Your task to perform on an android device: Open privacy settings Image 0: 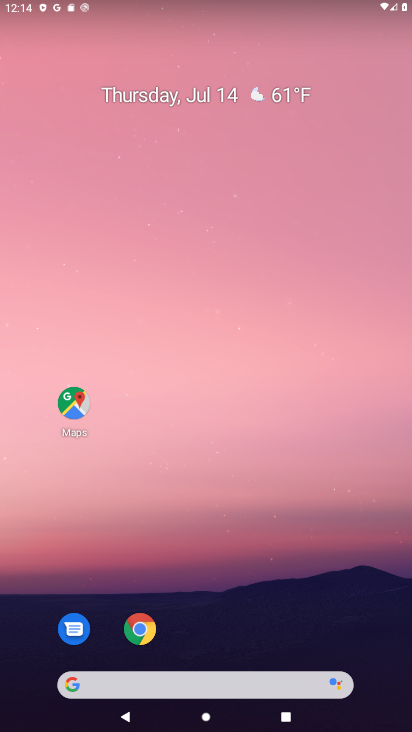
Step 0: drag from (219, 641) to (245, 95)
Your task to perform on an android device: Open privacy settings Image 1: 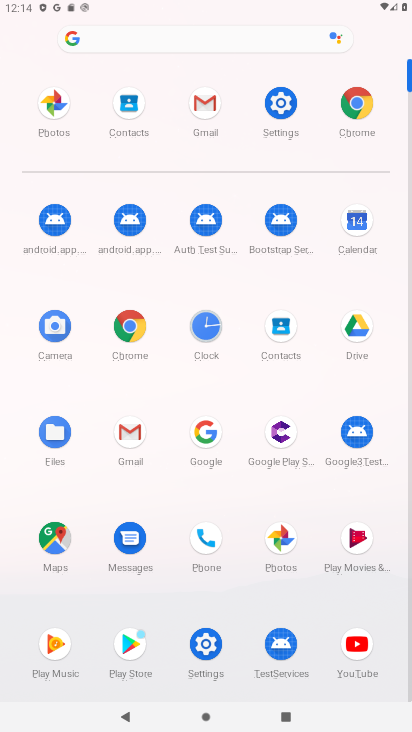
Step 1: click (274, 101)
Your task to perform on an android device: Open privacy settings Image 2: 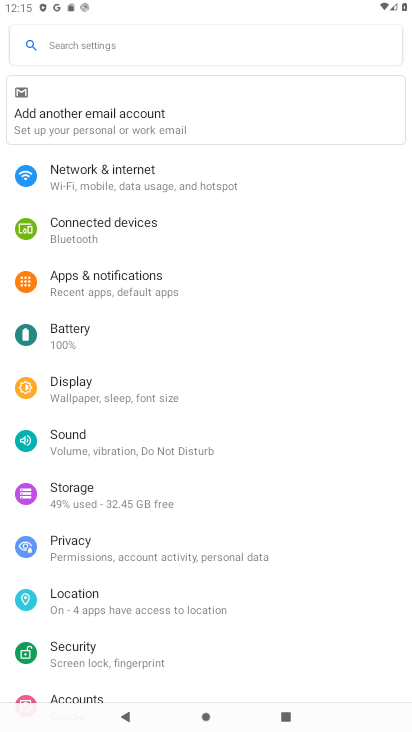
Step 2: drag from (143, 620) to (216, 253)
Your task to perform on an android device: Open privacy settings Image 3: 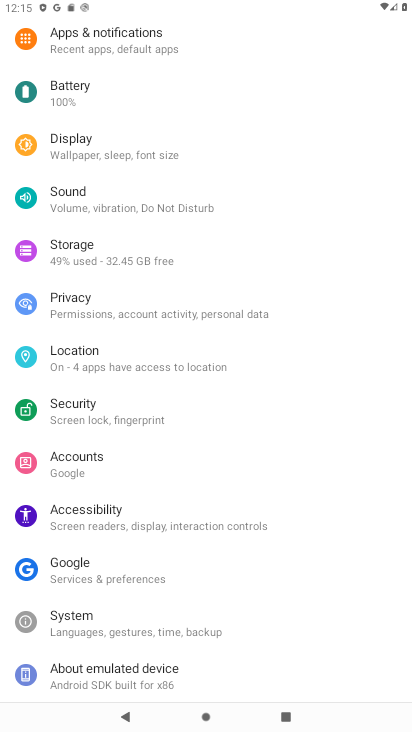
Step 3: click (117, 317)
Your task to perform on an android device: Open privacy settings Image 4: 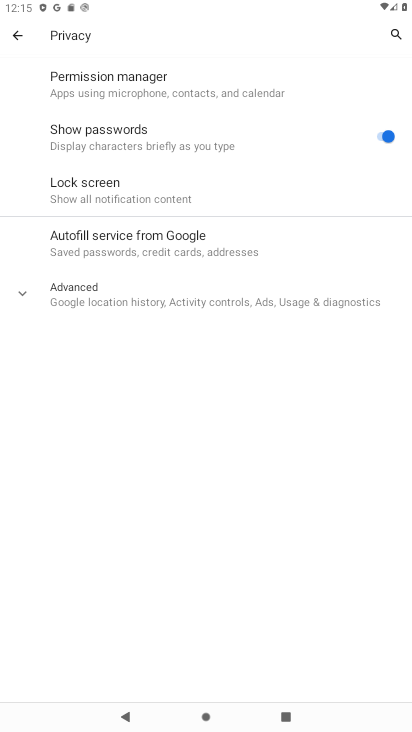
Step 4: task complete